Your task to perform on an android device: Open Chrome and go to the settings page Image 0: 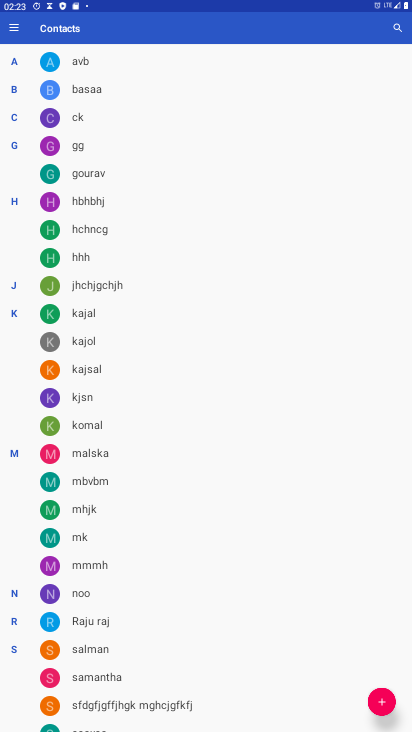
Step 0: press home button
Your task to perform on an android device: Open Chrome and go to the settings page Image 1: 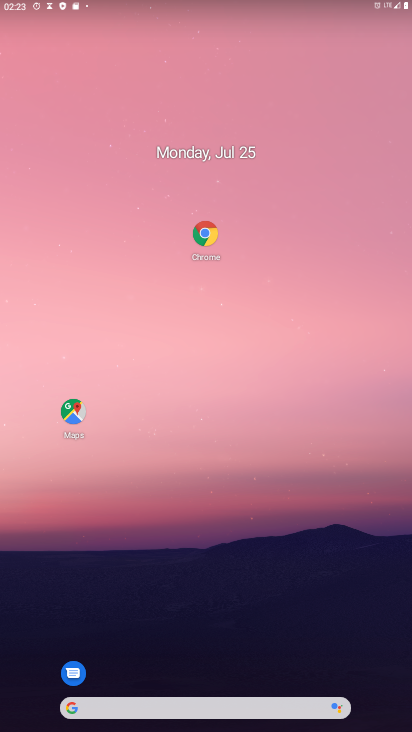
Step 1: drag from (254, 691) to (369, 3)
Your task to perform on an android device: Open Chrome and go to the settings page Image 2: 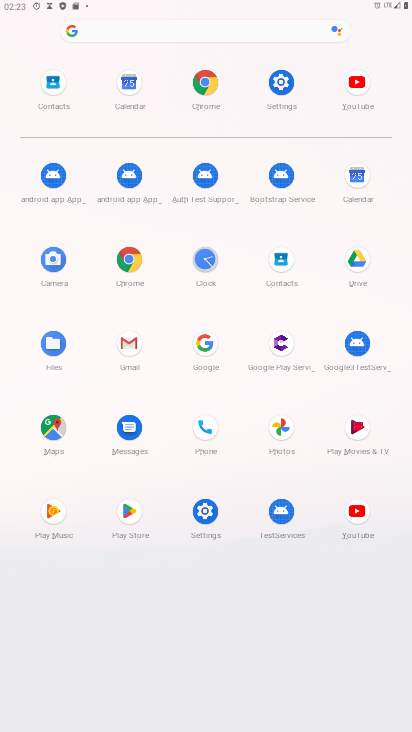
Step 2: click (130, 250)
Your task to perform on an android device: Open Chrome and go to the settings page Image 3: 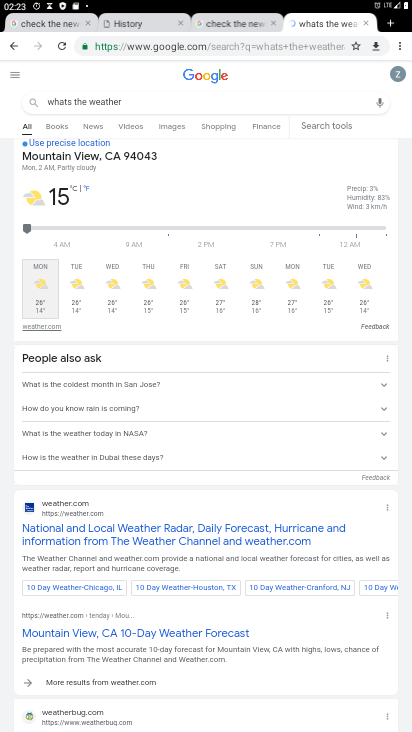
Step 3: task complete